Your task to perform on an android device: stop showing notifications on the lock screen Image 0: 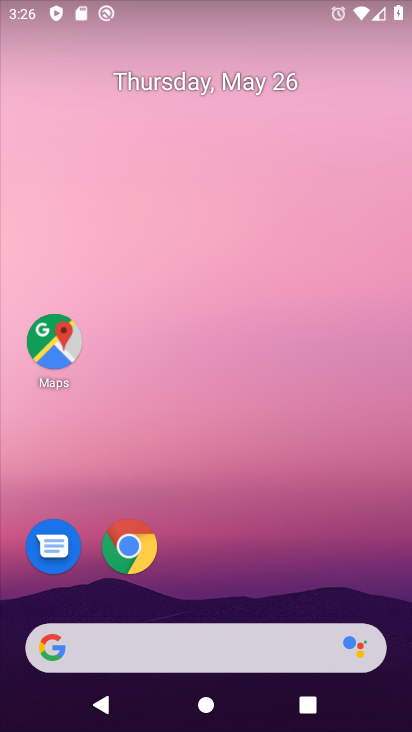
Step 0: drag from (399, 666) to (323, 260)
Your task to perform on an android device: stop showing notifications on the lock screen Image 1: 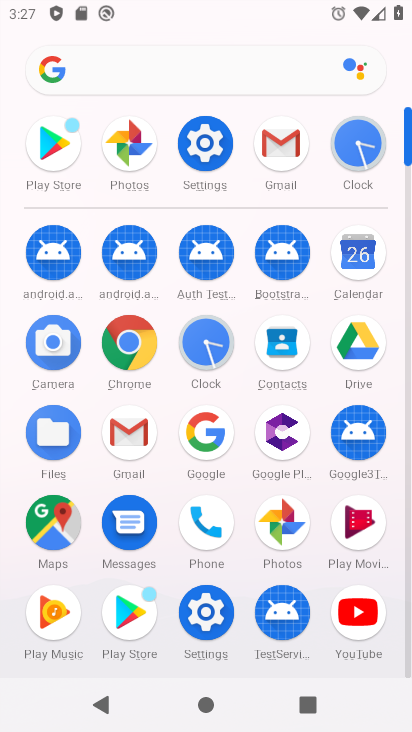
Step 1: click (194, 151)
Your task to perform on an android device: stop showing notifications on the lock screen Image 2: 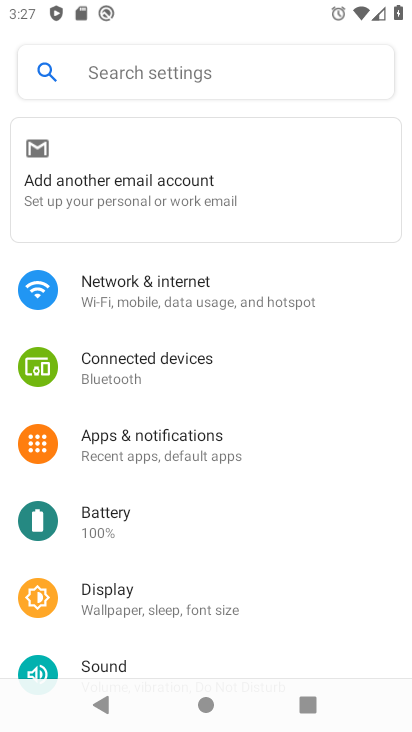
Step 2: click (109, 293)
Your task to perform on an android device: stop showing notifications on the lock screen Image 3: 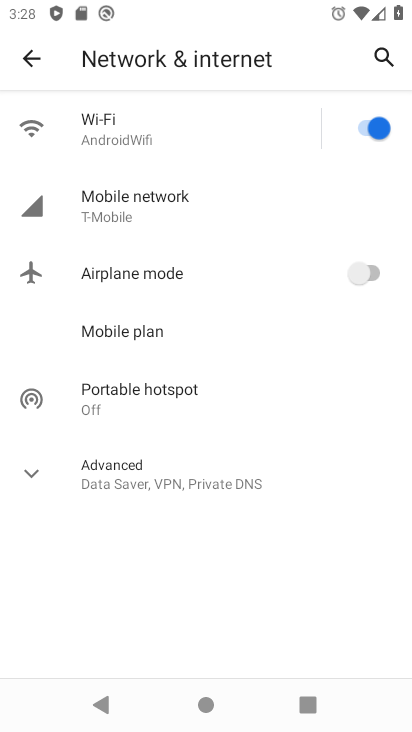
Step 3: press back button
Your task to perform on an android device: stop showing notifications on the lock screen Image 4: 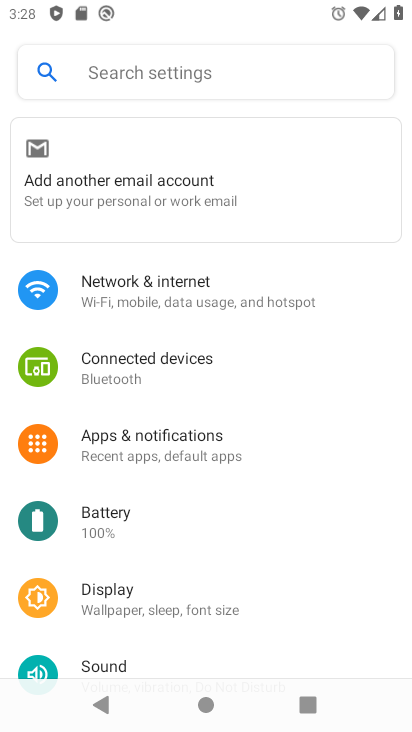
Step 4: click (152, 437)
Your task to perform on an android device: stop showing notifications on the lock screen Image 5: 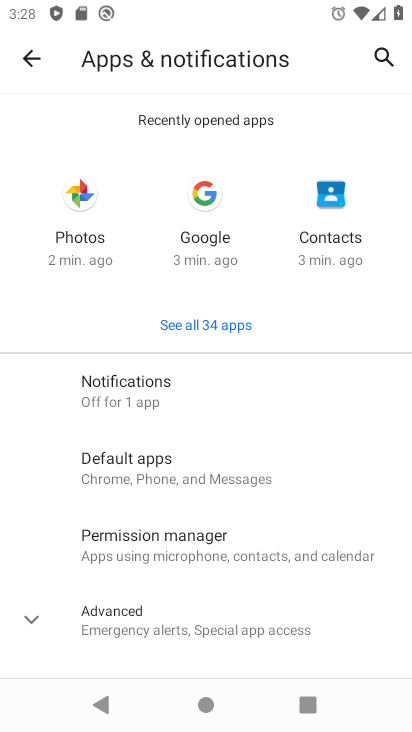
Step 5: click (106, 388)
Your task to perform on an android device: stop showing notifications on the lock screen Image 6: 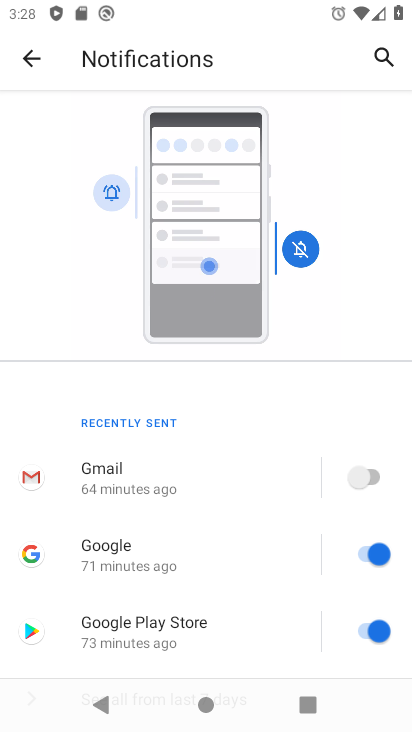
Step 6: drag from (245, 627) to (211, 137)
Your task to perform on an android device: stop showing notifications on the lock screen Image 7: 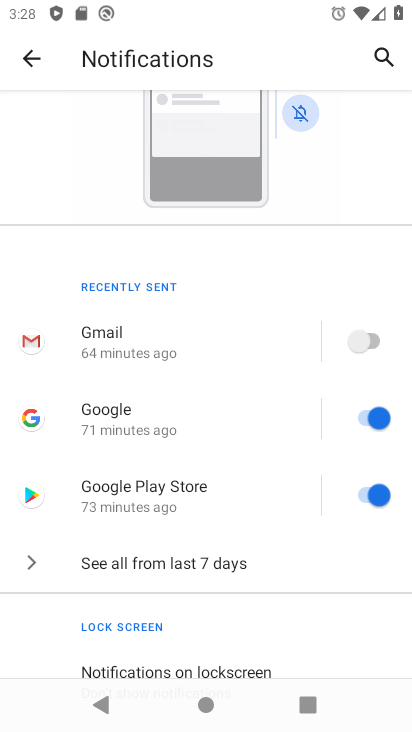
Step 7: click (170, 665)
Your task to perform on an android device: stop showing notifications on the lock screen Image 8: 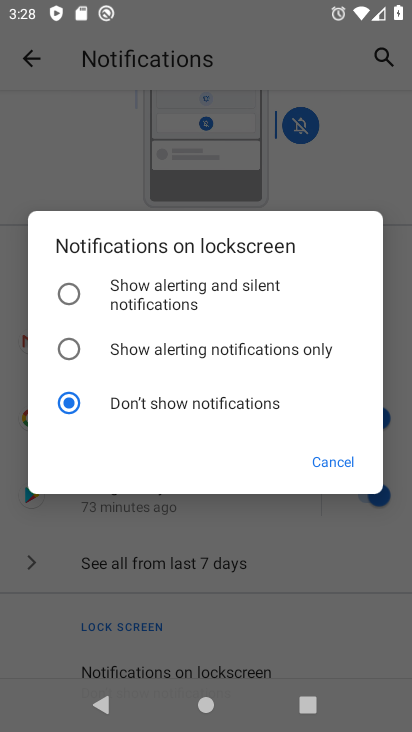
Step 8: task complete